Your task to perform on an android device: Play the last video I watched on Youtube Image 0: 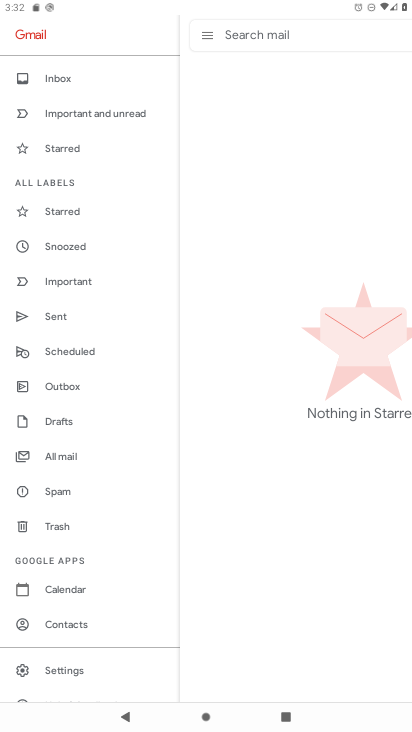
Step 0: press home button
Your task to perform on an android device: Play the last video I watched on Youtube Image 1: 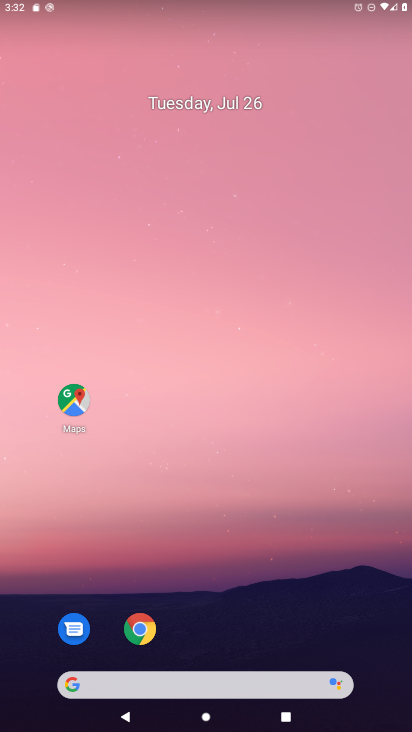
Step 1: drag from (203, 641) to (174, 213)
Your task to perform on an android device: Play the last video I watched on Youtube Image 2: 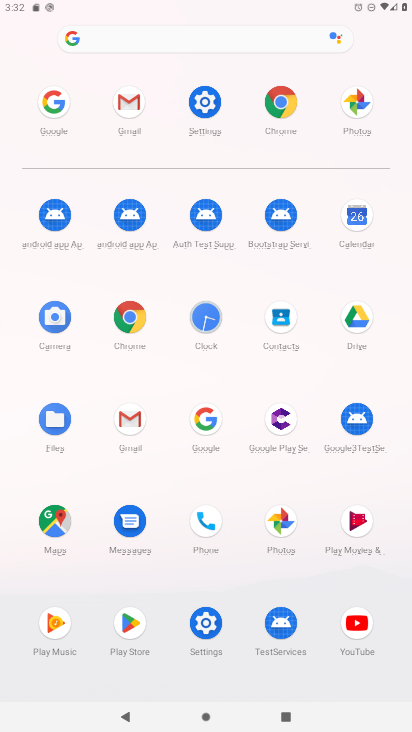
Step 2: click (361, 627)
Your task to perform on an android device: Play the last video I watched on Youtube Image 3: 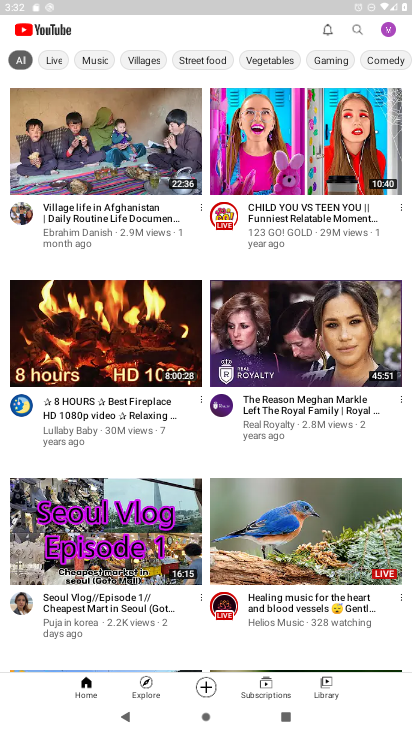
Step 3: click (324, 688)
Your task to perform on an android device: Play the last video I watched on Youtube Image 4: 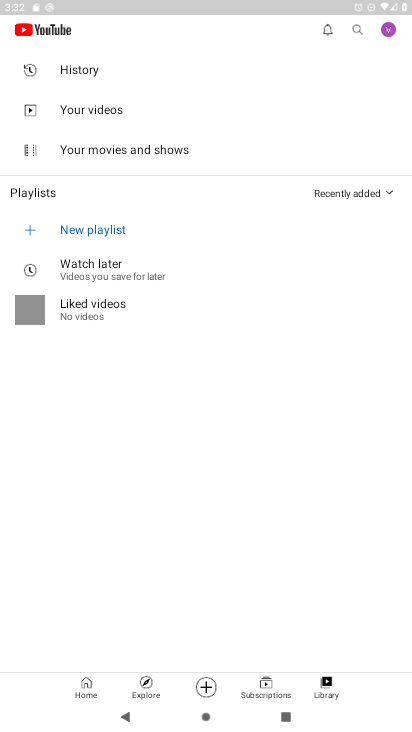
Step 4: click (86, 71)
Your task to perform on an android device: Play the last video I watched on Youtube Image 5: 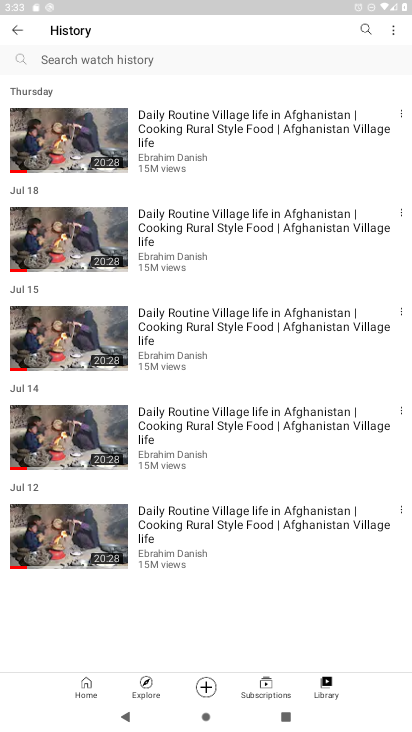
Step 5: click (216, 117)
Your task to perform on an android device: Play the last video I watched on Youtube Image 6: 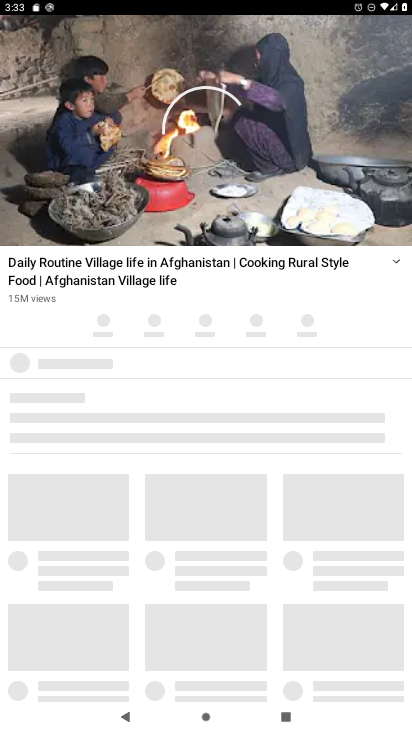
Step 6: click (154, 168)
Your task to perform on an android device: Play the last video I watched on Youtube Image 7: 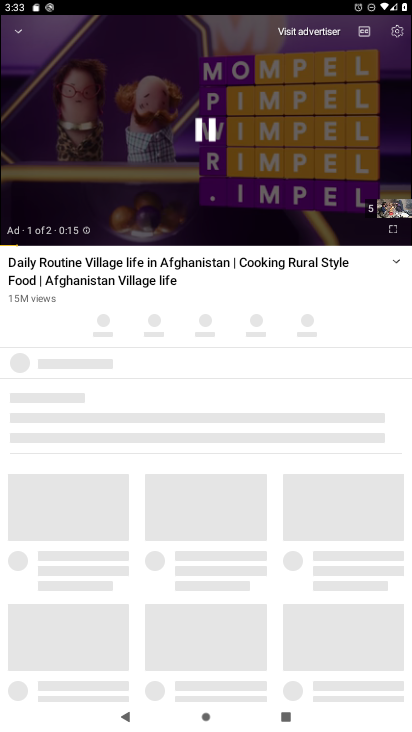
Step 7: click (189, 155)
Your task to perform on an android device: Play the last video I watched on Youtube Image 8: 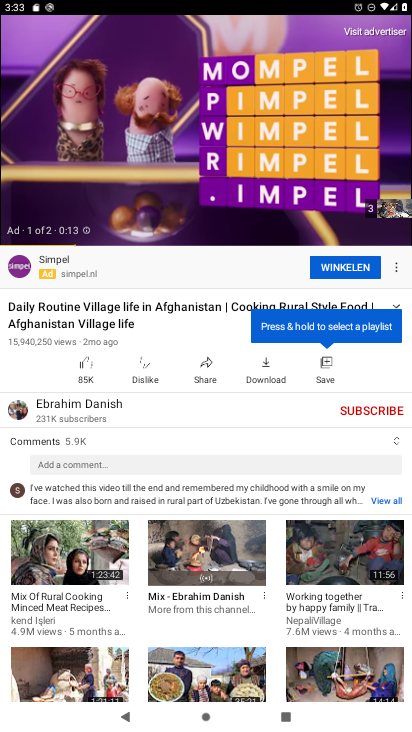
Step 8: click (210, 129)
Your task to perform on an android device: Play the last video I watched on Youtube Image 9: 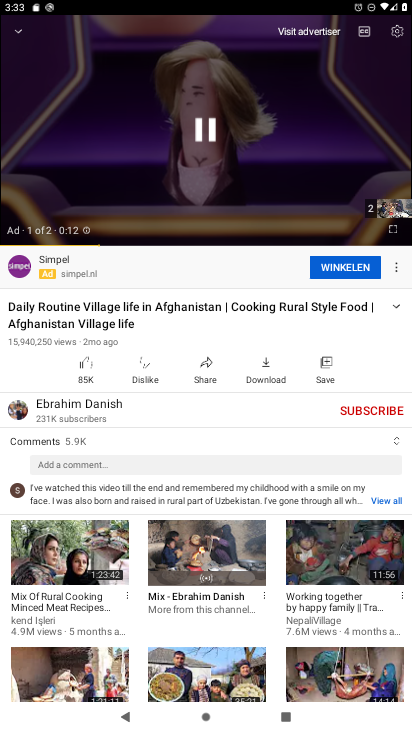
Step 9: click (207, 132)
Your task to perform on an android device: Play the last video I watched on Youtube Image 10: 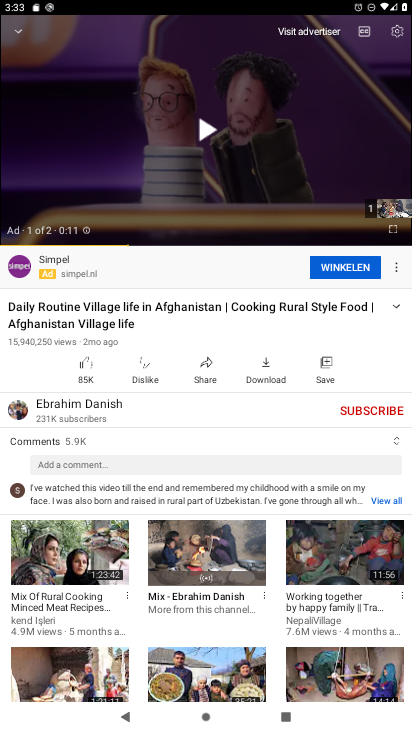
Step 10: task complete